Your task to perform on an android device: Go to Google maps Image 0: 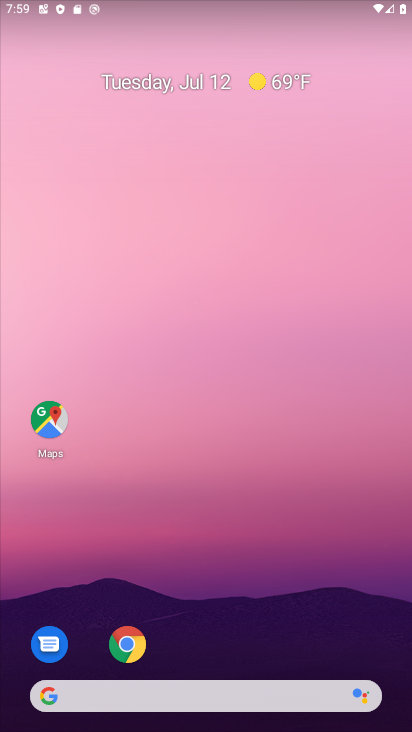
Step 0: press home button
Your task to perform on an android device: Go to Google maps Image 1: 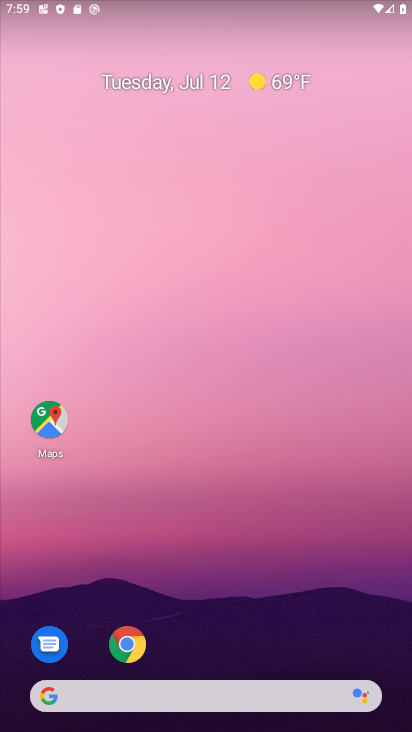
Step 1: click (48, 416)
Your task to perform on an android device: Go to Google maps Image 2: 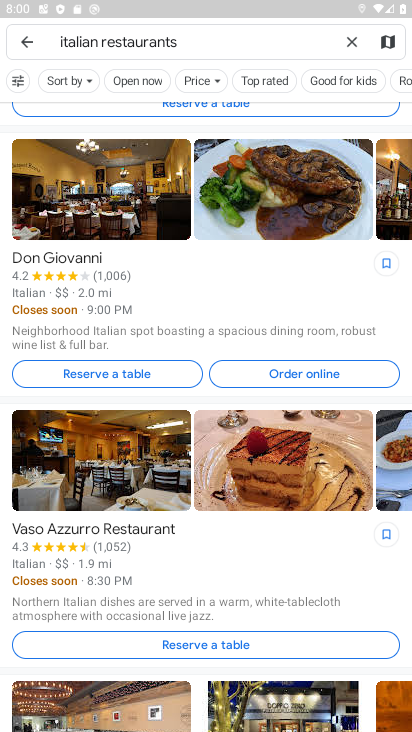
Step 2: click (27, 37)
Your task to perform on an android device: Go to Google maps Image 3: 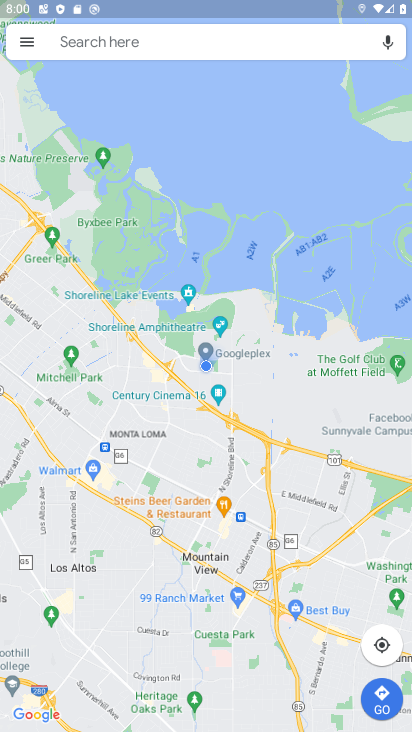
Step 3: task complete